Your task to perform on an android device: delete the emails in spam in the gmail app Image 0: 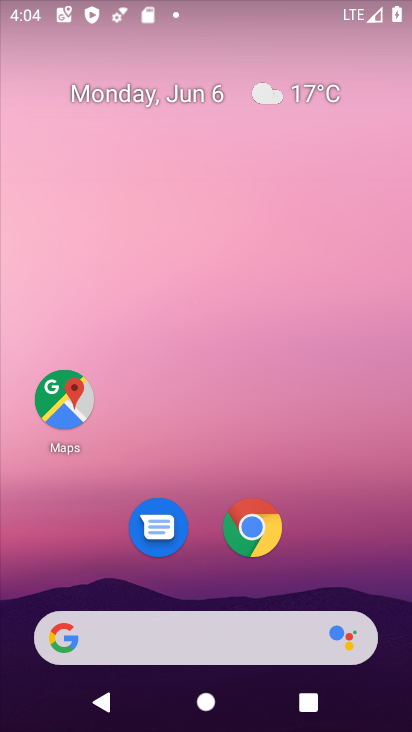
Step 0: drag from (358, 555) to (354, 355)
Your task to perform on an android device: delete the emails in spam in the gmail app Image 1: 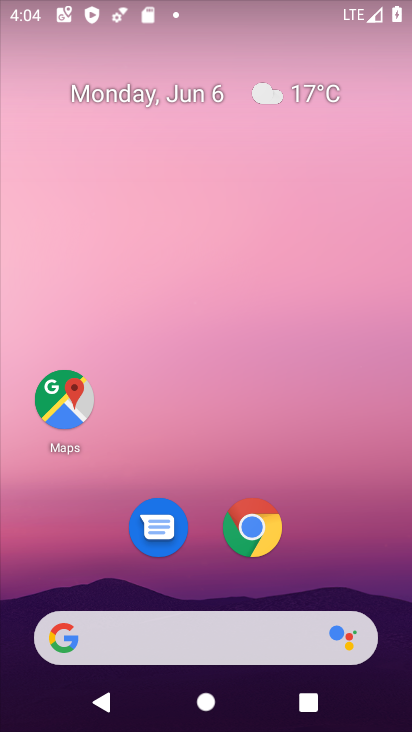
Step 1: click (354, 355)
Your task to perform on an android device: delete the emails in spam in the gmail app Image 2: 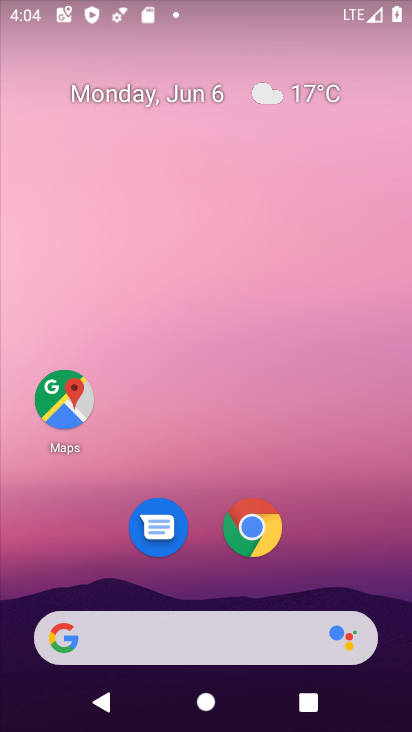
Step 2: drag from (341, 498) to (348, 45)
Your task to perform on an android device: delete the emails in spam in the gmail app Image 3: 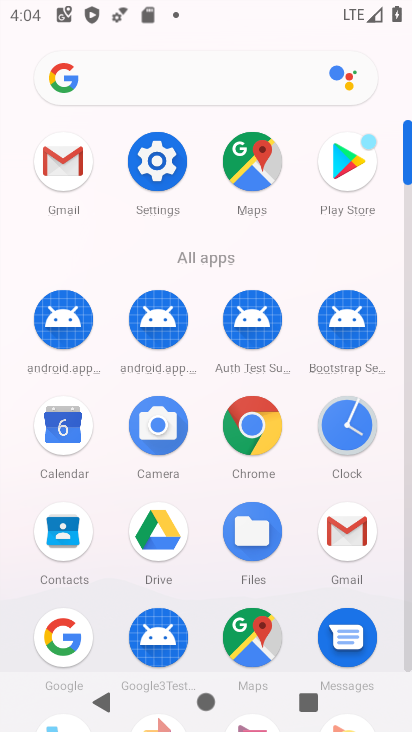
Step 3: click (67, 149)
Your task to perform on an android device: delete the emails in spam in the gmail app Image 4: 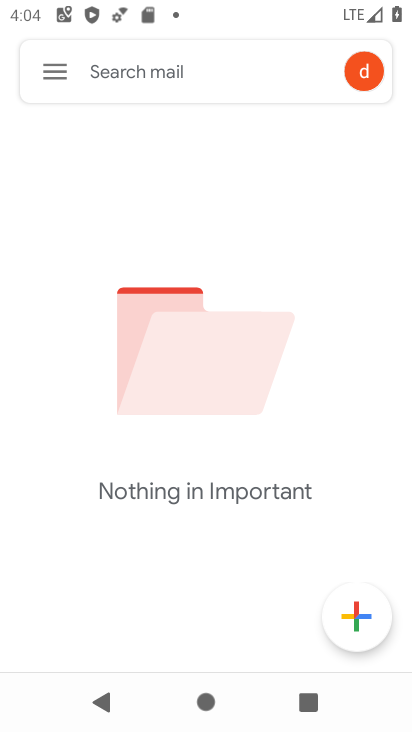
Step 4: click (43, 66)
Your task to perform on an android device: delete the emails in spam in the gmail app Image 5: 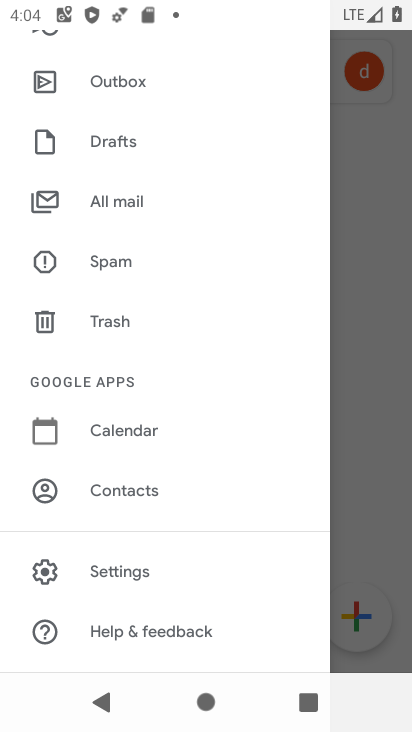
Step 5: click (120, 256)
Your task to perform on an android device: delete the emails in spam in the gmail app Image 6: 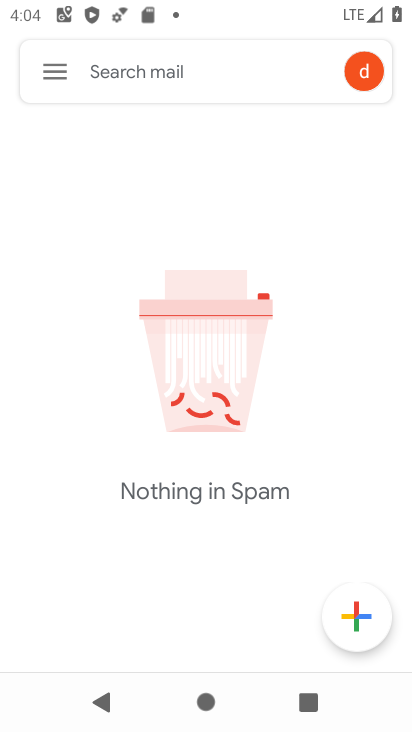
Step 6: task complete